Your task to perform on an android device: Go to Reddit.com Image 0: 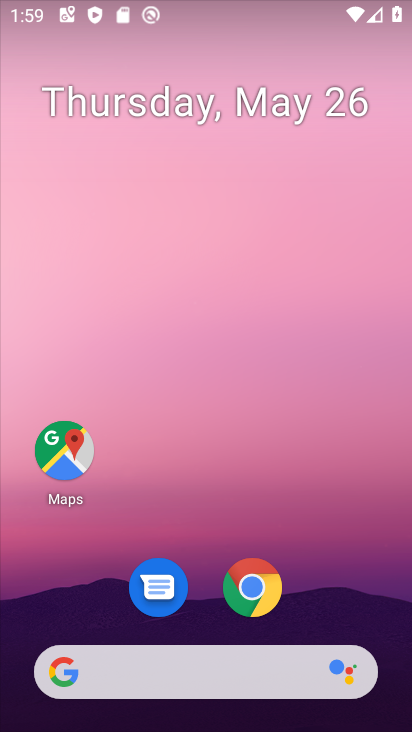
Step 0: drag from (311, 384) to (310, 142)
Your task to perform on an android device: Go to Reddit.com Image 1: 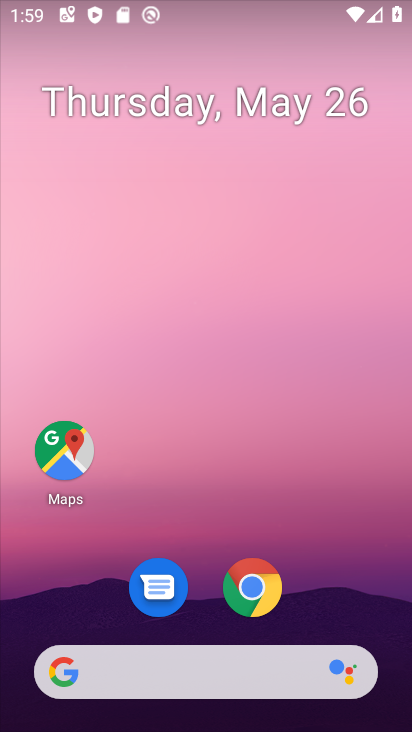
Step 1: drag from (292, 537) to (265, 18)
Your task to perform on an android device: Go to Reddit.com Image 2: 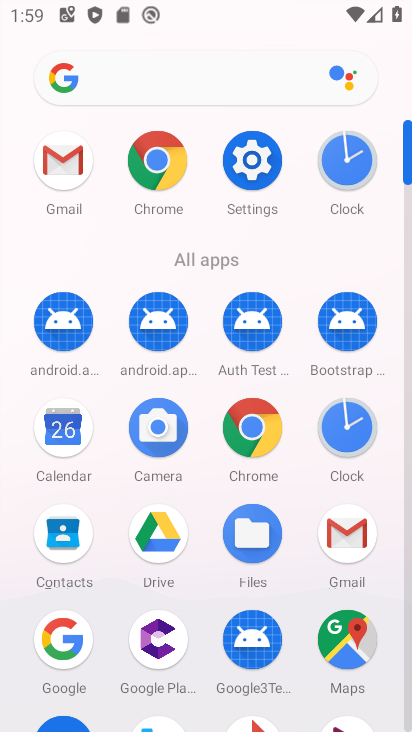
Step 2: click (161, 186)
Your task to perform on an android device: Go to Reddit.com Image 3: 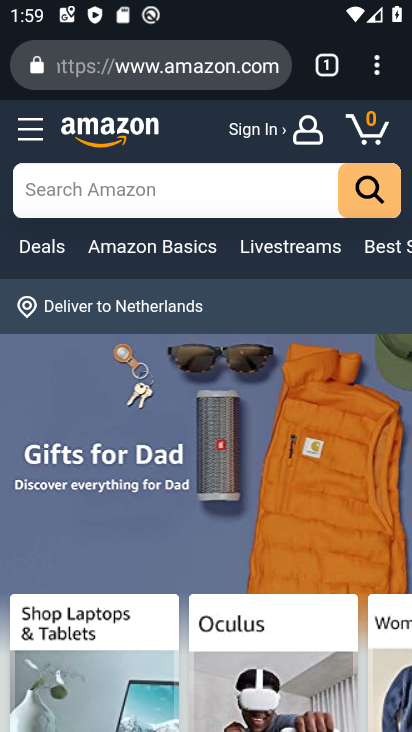
Step 3: click (199, 76)
Your task to perform on an android device: Go to Reddit.com Image 4: 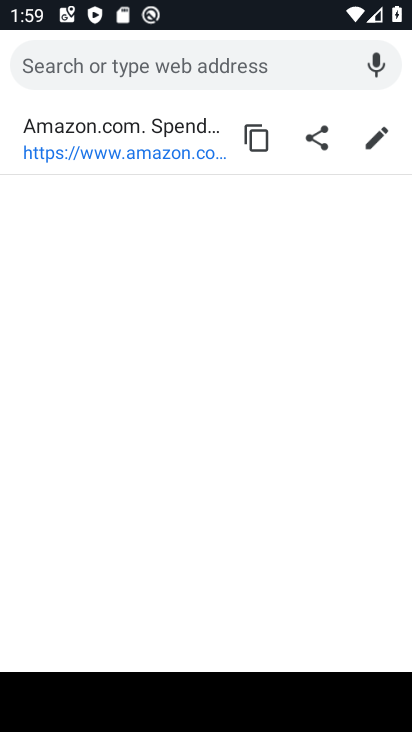
Step 4: type "reddit.com"
Your task to perform on an android device: Go to Reddit.com Image 5: 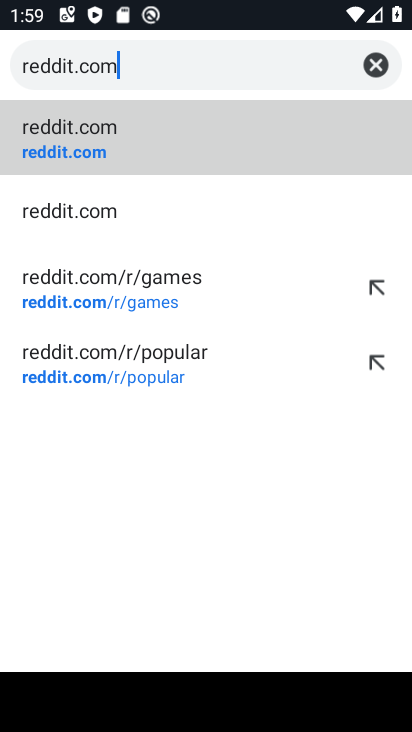
Step 5: click (88, 163)
Your task to perform on an android device: Go to Reddit.com Image 6: 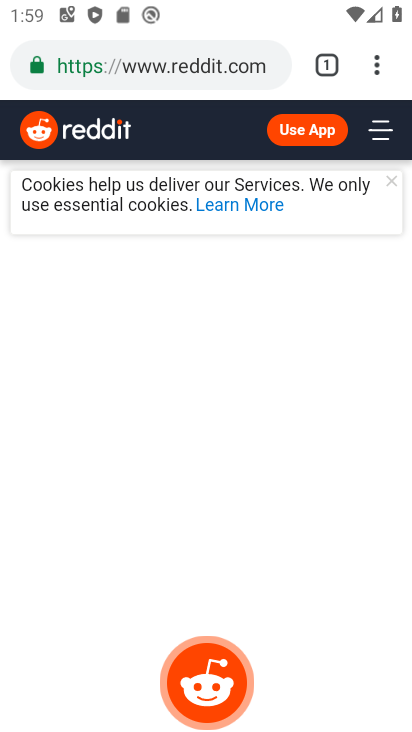
Step 6: task complete